Your task to perform on an android device: change notifications settings Image 0: 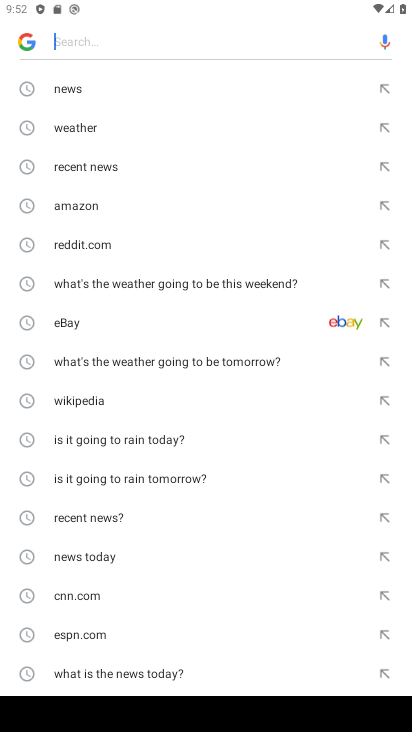
Step 0: press home button
Your task to perform on an android device: change notifications settings Image 1: 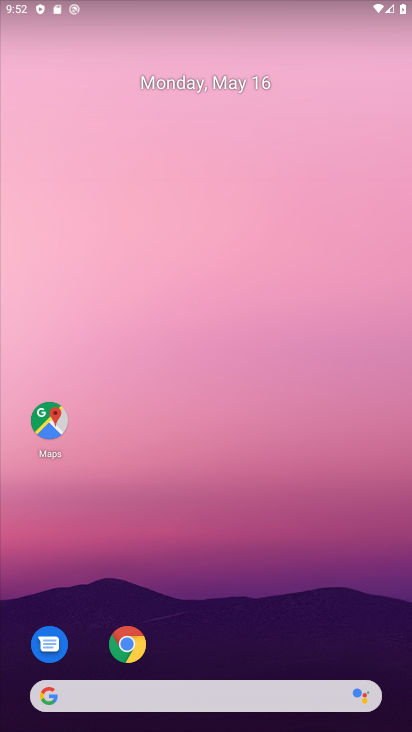
Step 1: drag from (32, 559) to (222, 147)
Your task to perform on an android device: change notifications settings Image 2: 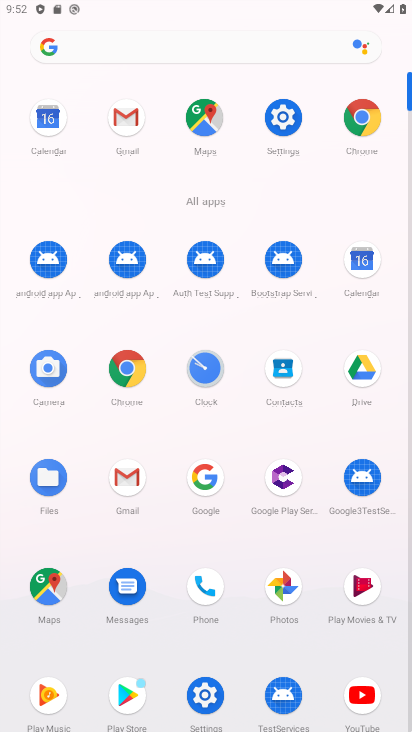
Step 2: click (290, 120)
Your task to perform on an android device: change notifications settings Image 3: 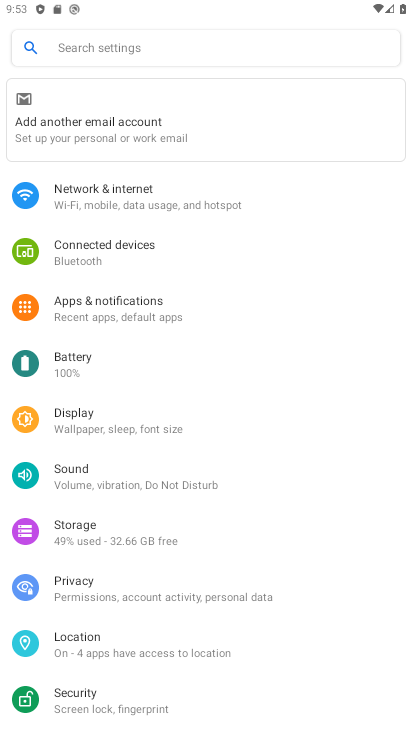
Step 3: click (53, 295)
Your task to perform on an android device: change notifications settings Image 4: 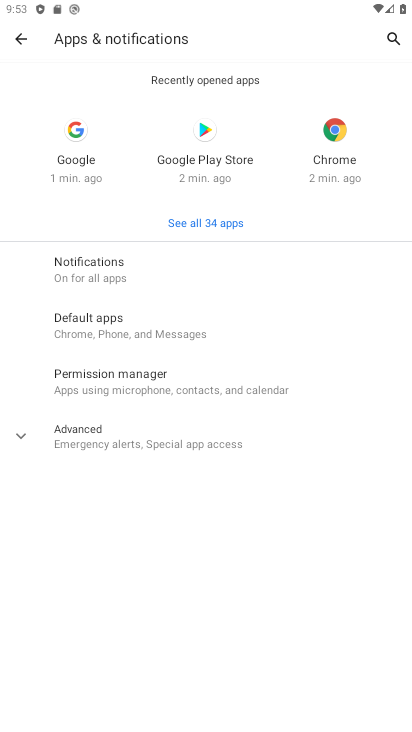
Step 4: click (84, 272)
Your task to perform on an android device: change notifications settings Image 5: 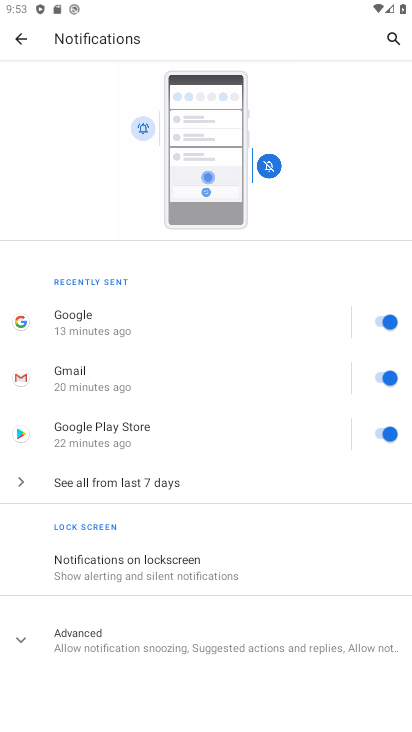
Step 5: click (400, 323)
Your task to perform on an android device: change notifications settings Image 6: 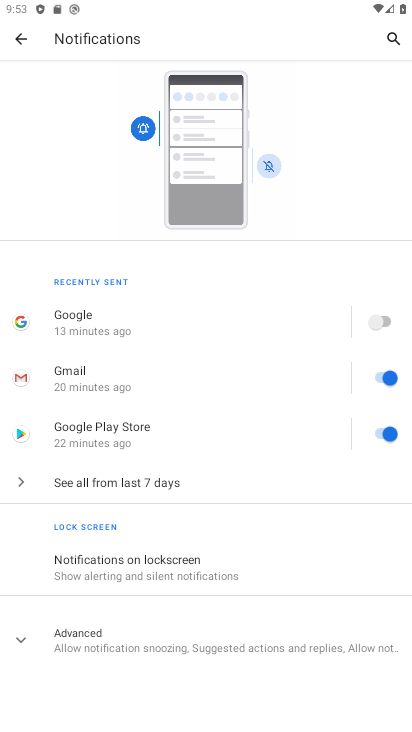
Step 6: task complete